Your task to perform on an android device: search for starred emails in the gmail app Image 0: 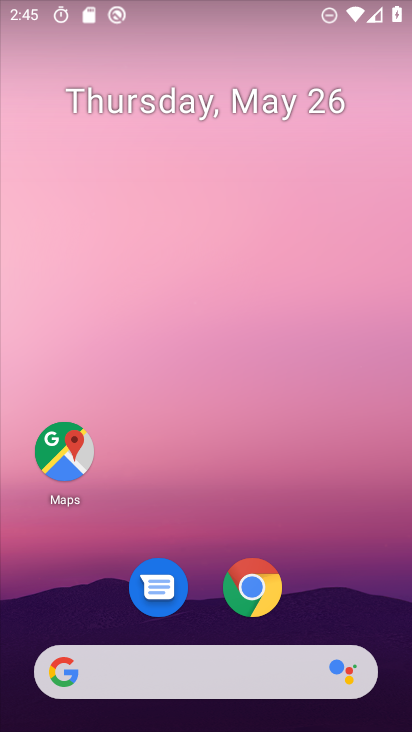
Step 0: drag from (321, 605) to (287, 187)
Your task to perform on an android device: search for starred emails in the gmail app Image 1: 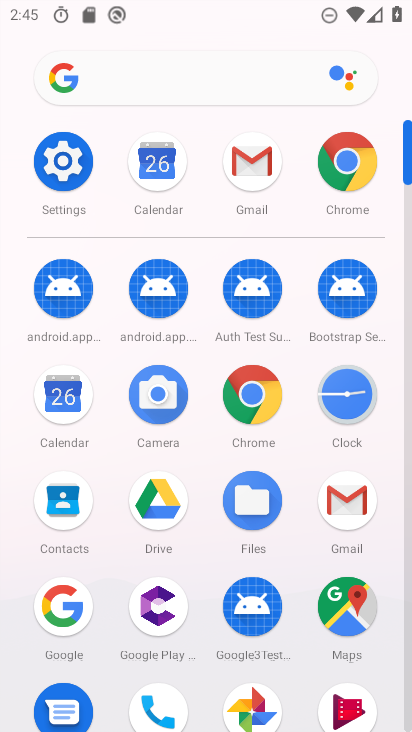
Step 1: click (262, 166)
Your task to perform on an android device: search for starred emails in the gmail app Image 2: 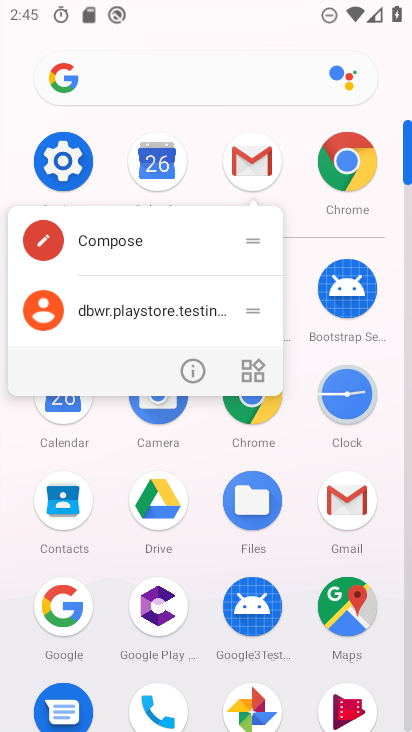
Step 2: click (261, 164)
Your task to perform on an android device: search for starred emails in the gmail app Image 3: 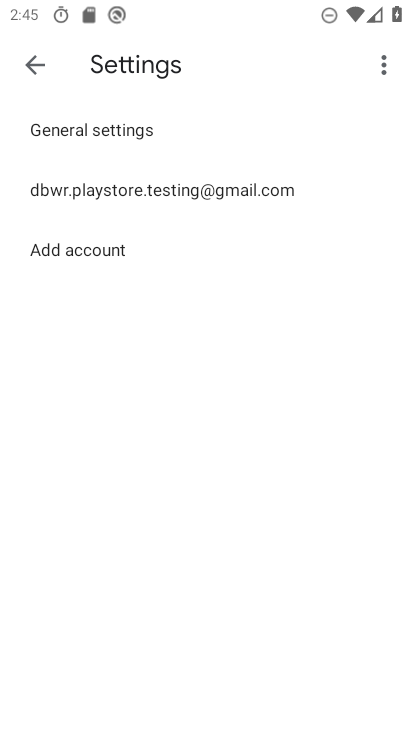
Step 3: click (37, 54)
Your task to perform on an android device: search for starred emails in the gmail app Image 4: 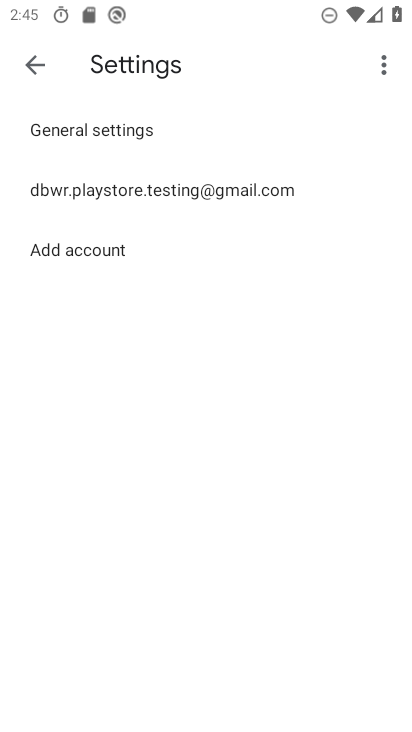
Step 4: click (37, 54)
Your task to perform on an android device: search for starred emails in the gmail app Image 5: 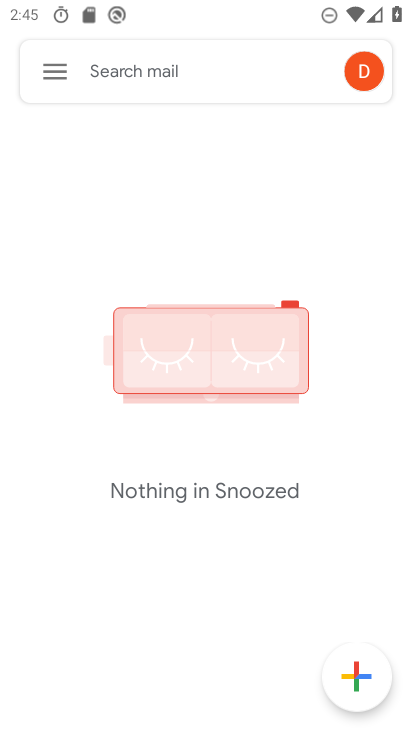
Step 5: click (38, 56)
Your task to perform on an android device: search for starred emails in the gmail app Image 6: 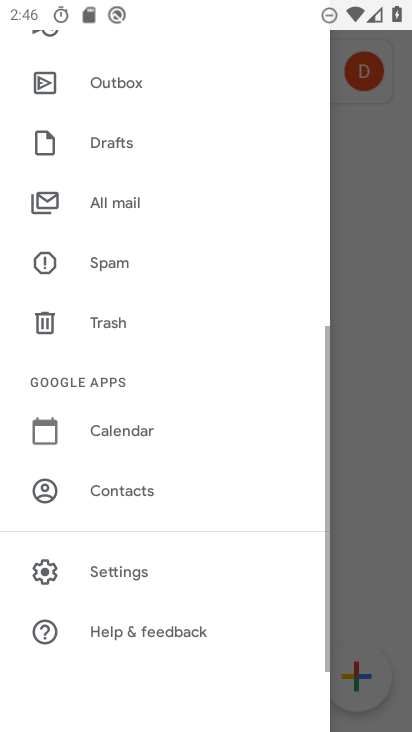
Step 6: drag from (103, 134) to (144, 519)
Your task to perform on an android device: search for starred emails in the gmail app Image 7: 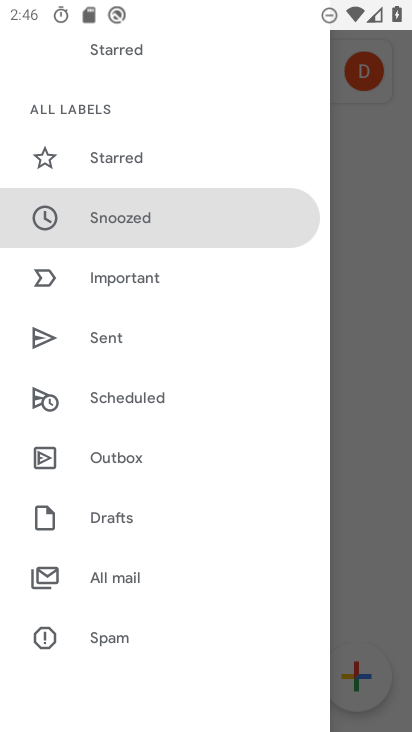
Step 7: click (129, 164)
Your task to perform on an android device: search for starred emails in the gmail app Image 8: 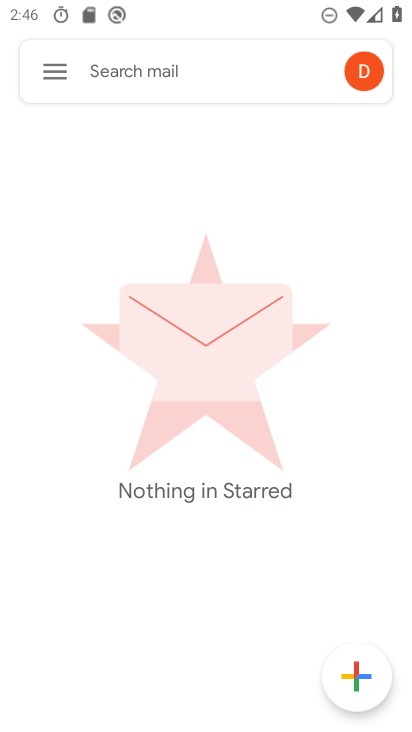
Step 8: task complete